Your task to perform on an android device: turn off smart reply in the gmail app Image 0: 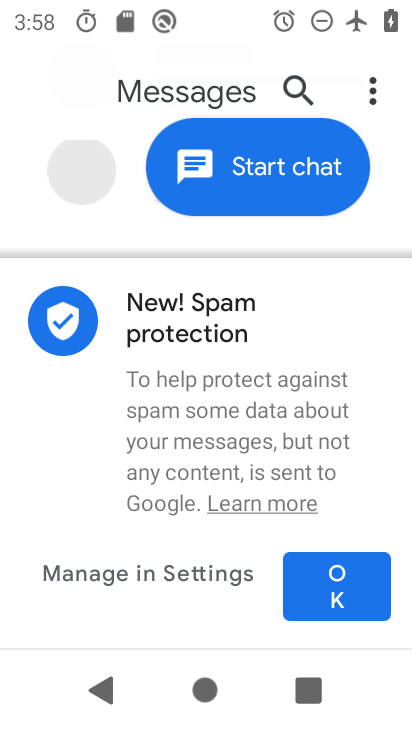
Step 0: press home button
Your task to perform on an android device: turn off smart reply in the gmail app Image 1: 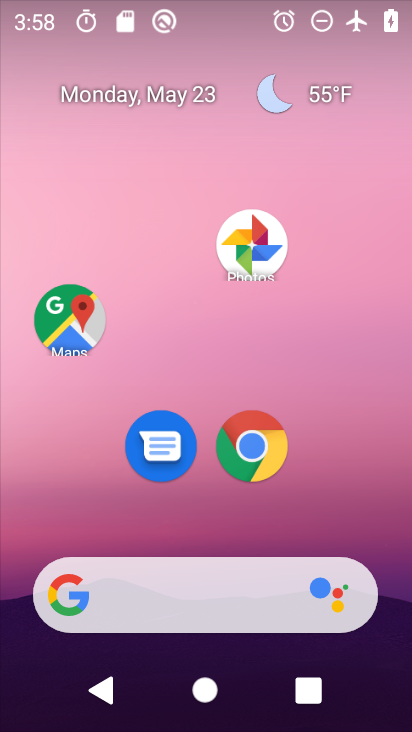
Step 1: drag from (232, 513) to (227, 54)
Your task to perform on an android device: turn off smart reply in the gmail app Image 2: 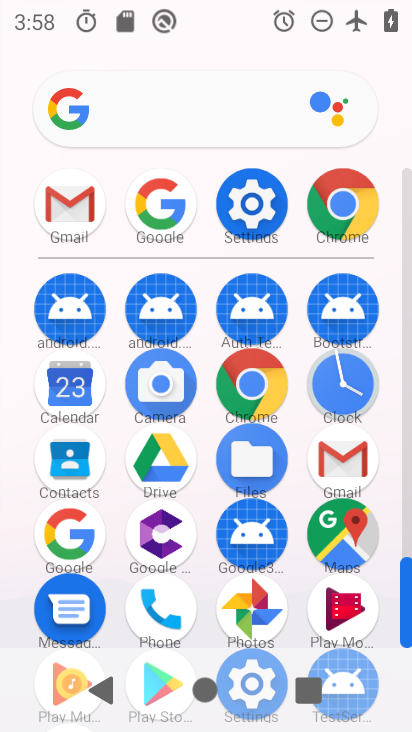
Step 2: click (59, 204)
Your task to perform on an android device: turn off smart reply in the gmail app Image 3: 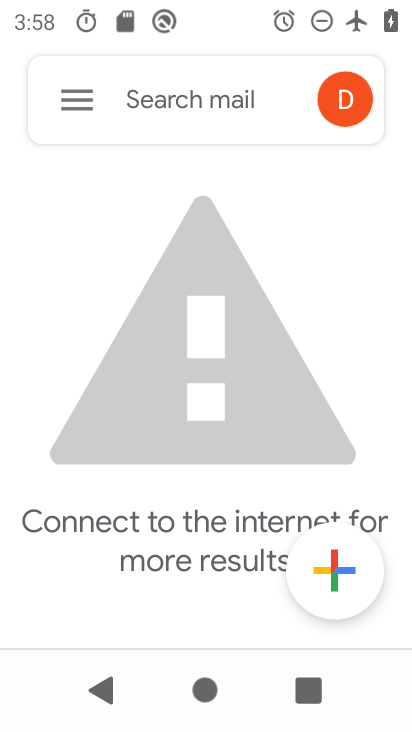
Step 3: click (63, 112)
Your task to perform on an android device: turn off smart reply in the gmail app Image 4: 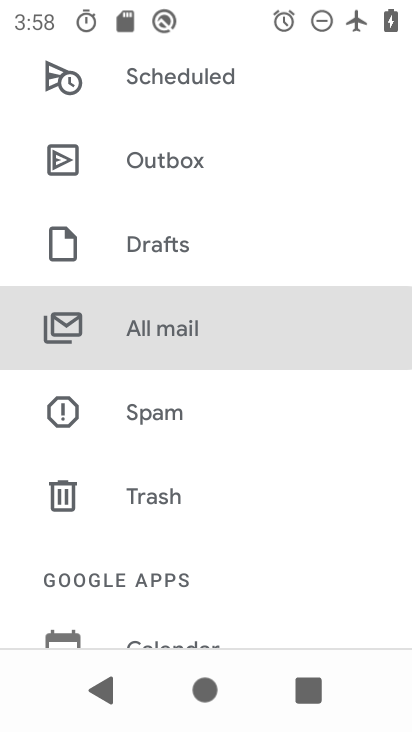
Step 4: drag from (175, 553) to (184, 147)
Your task to perform on an android device: turn off smart reply in the gmail app Image 5: 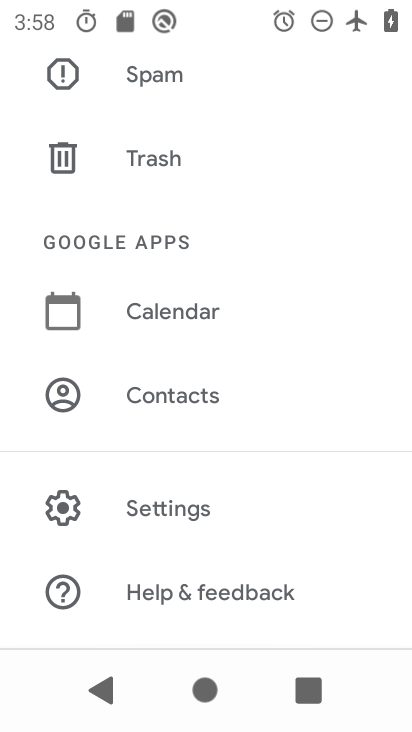
Step 5: click (187, 484)
Your task to perform on an android device: turn off smart reply in the gmail app Image 6: 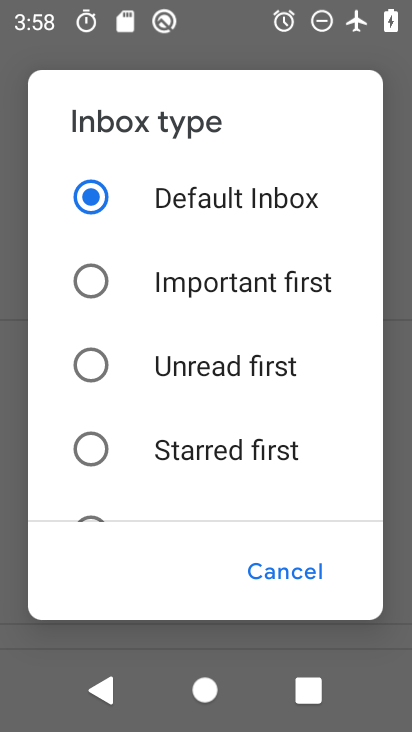
Step 6: click (284, 580)
Your task to perform on an android device: turn off smart reply in the gmail app Image 7: 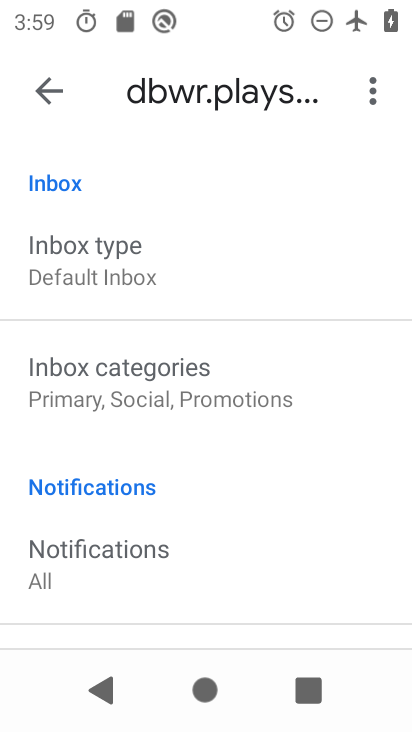
Step 7: drag from (210, 548) to (215, 214)
Your task to perform on an android device: turn off smart reply in the gmail app Image 8: 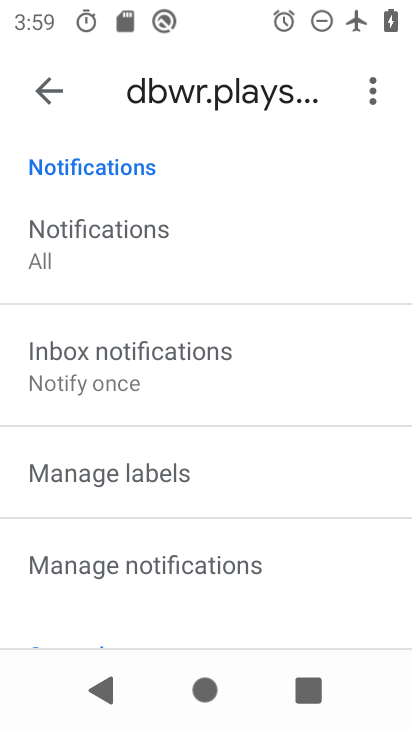
Step 8: drag from (184, 500) to (194, 266)
Your task to perform on an android device: turn off smart reply in the gmail app Image 9: 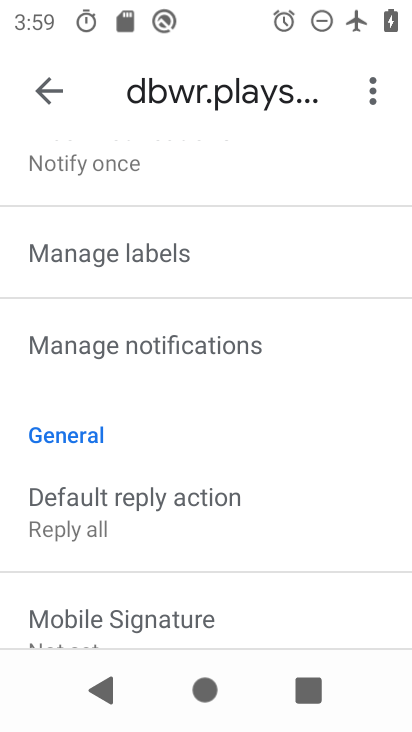
Step 9: drag from (210, 474) to (225, 255)
Your task to perform on an android device: turn off smart reply in the gmail app Image 10: 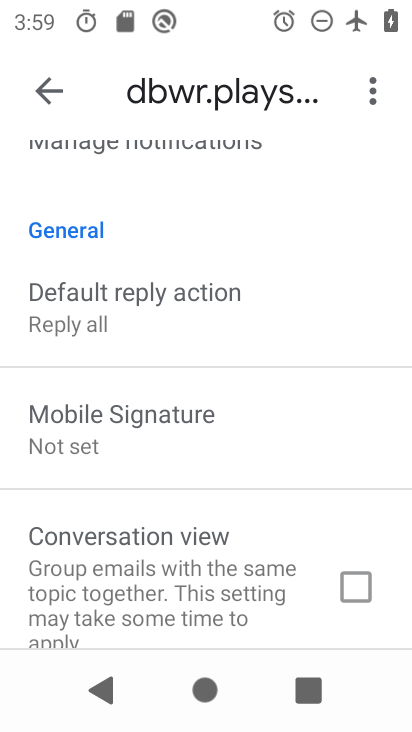
Step 10: drag from (208, 556) to (213, 227)
Your task to perform on an android device: turn off smart reply in the gmail app Image 11: 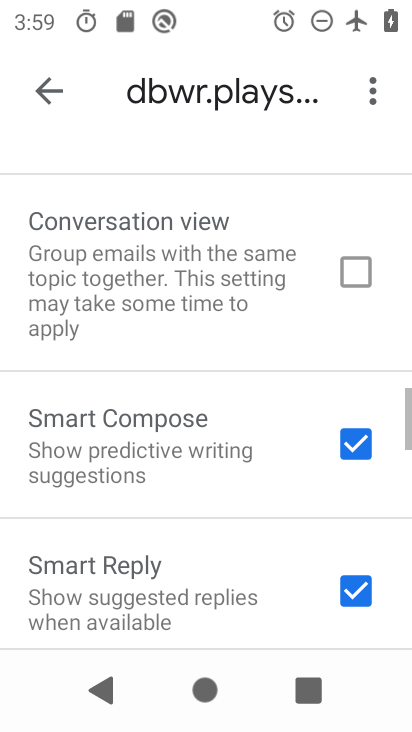
Step 11: drag from (246, 498) to (254, 285)
Your task to perform on an android device: turn off smart reply in the gmail app Image 12: 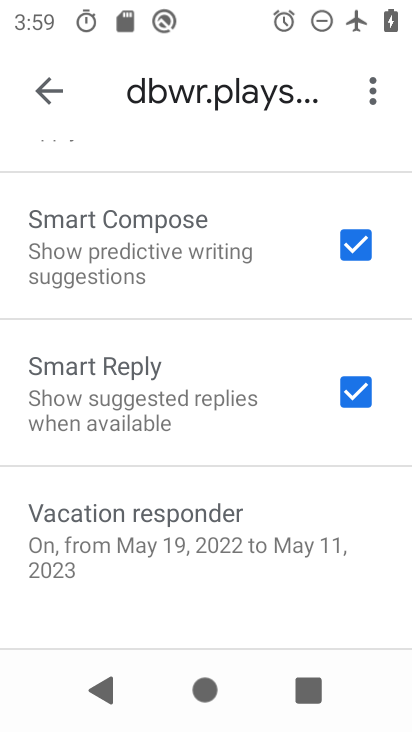
Step 12: click (351, 391)
Your task to perform on an android device: turn off smart reply in the gmail app Image 13: 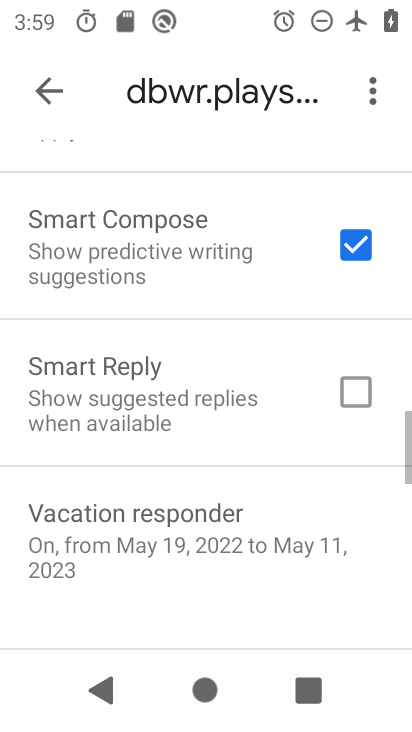
Step 13: task complete